Your task to perform on an android device: turn off priority inbox in the gmail app Image 0: 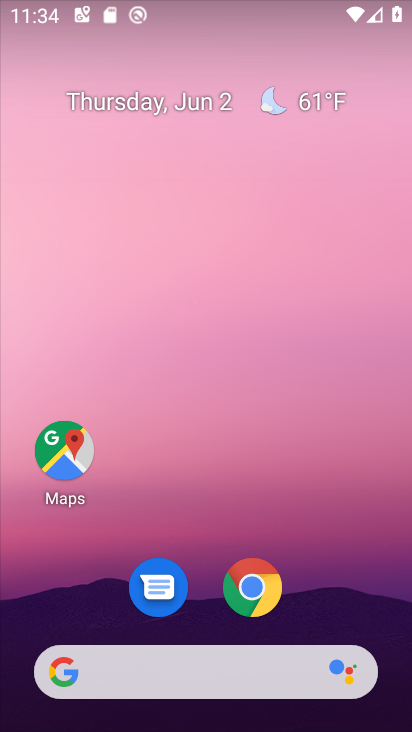
Step 0: drag from (215, 513) to (251, 1)
Your task to perform on an android device: turn off priority inbox in the gmail app Image 1: 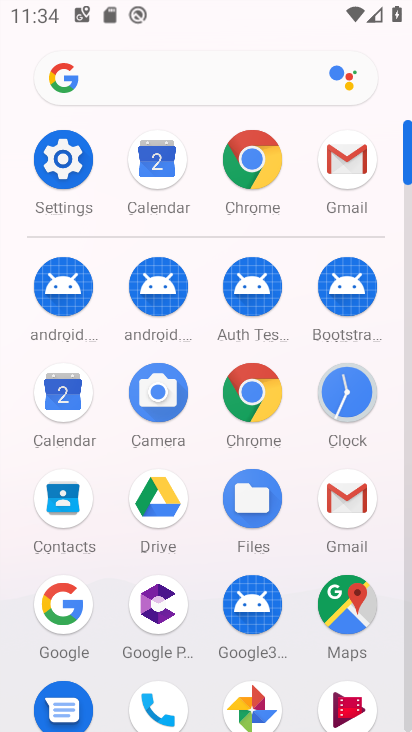
Step 1: click (348, 167)
Your task to perform on an android device: turn off priority inbox in the gmail app Image 2: 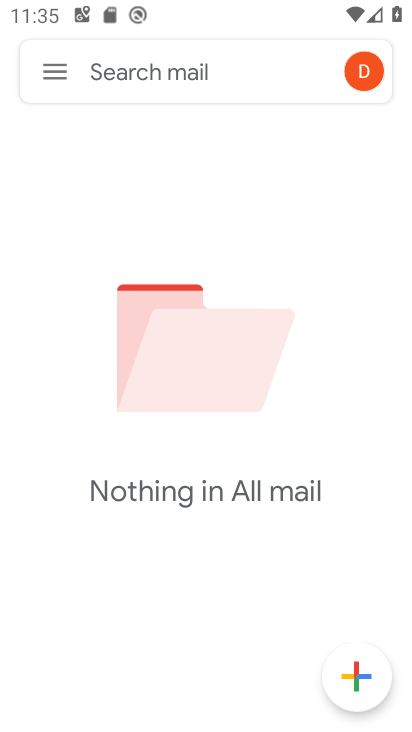
Step 2: click (60, 68)
Your task to perform on an android device: turn off priority inbox in the gmail app Image 3: 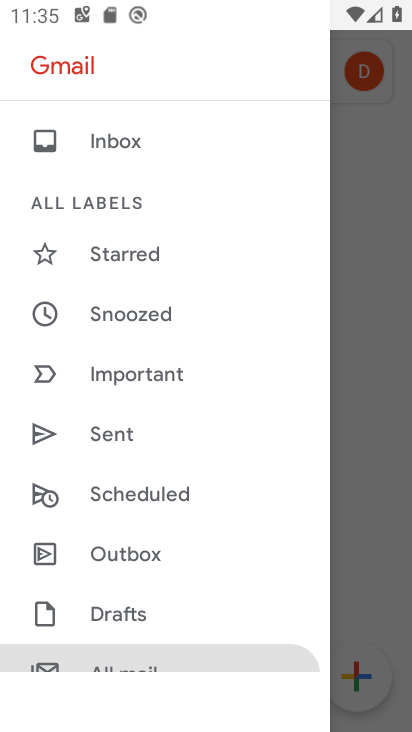
Step 3: drag from (188, 462) to (236, 71)
Your task to perform on an android device: turn off priority inbox in the gmail app Image 4: 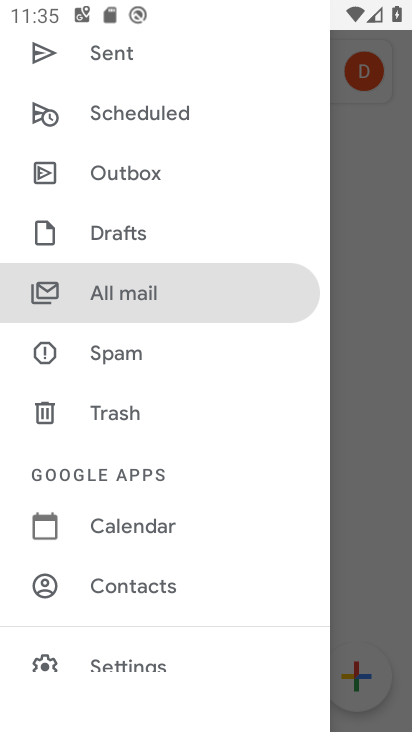
Step 4: drag from (166, 412) to (197, 252)
Your task to perform on an android device: turn off priority inbox in the gmail app Image 5: 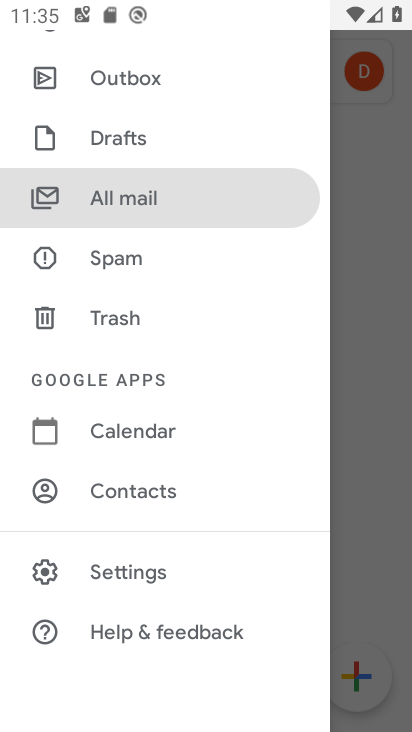
Step 5: click (149, 561)
Your task to perform on an android device: turn off priority inbox in the gmail app Image 6: 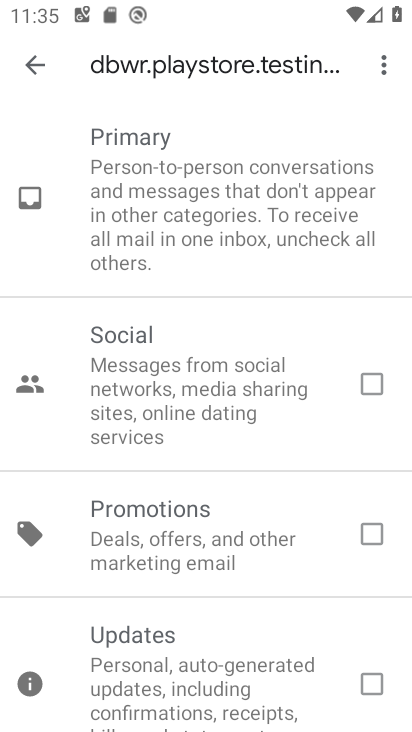
Step 6: click (33, 49)
Your task to perform on an android device: turn off priority inbox in the gmail app Image 7: 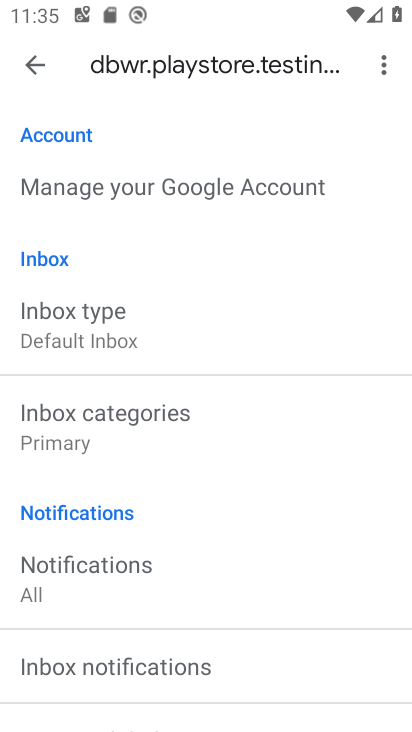
Step 7: task complete